Your task to perform on an android device: Open the contacts app Image 0: 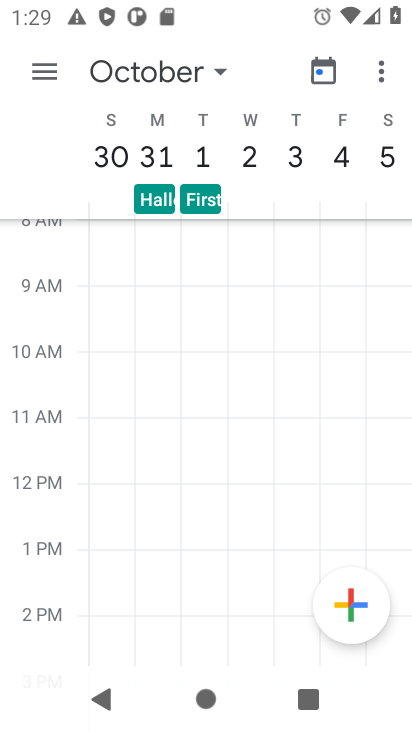
Step 0: press home button
Your task to perform on an android device: Open the contacts app Image 1: 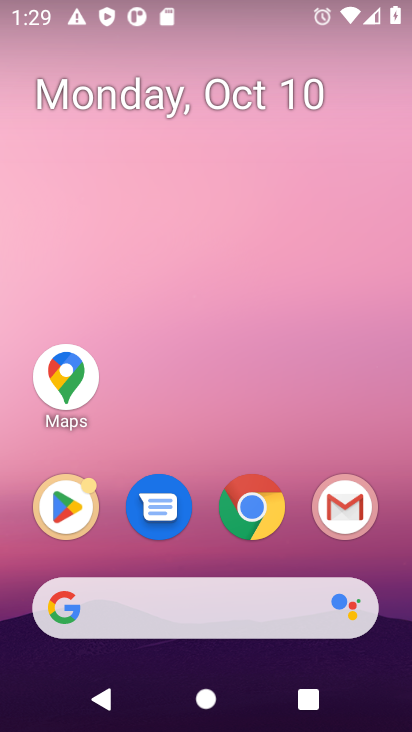
Step 1: drag from (376, 562) to (371, 131)
Your task to perform on an android device: Open the contacts app Image 2: 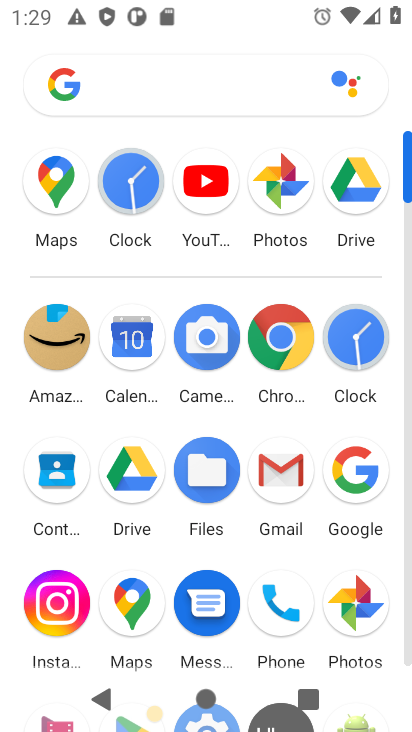
Step 2: drag from (387, 554) to (381, 376)
Your task to perform on an android device: Open the contacts app Image 3: 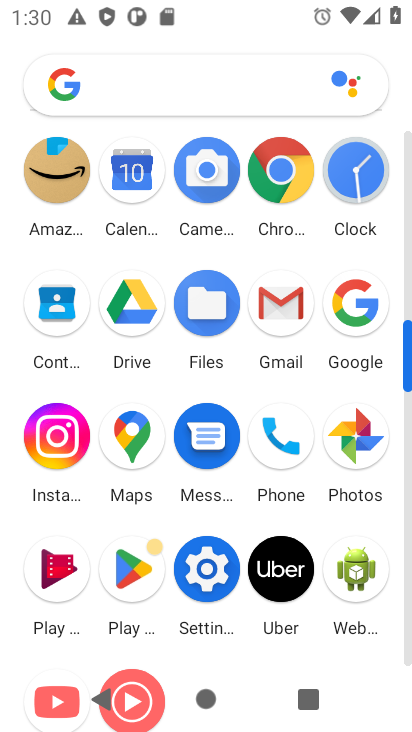
Step 3: click (65, 316)
Your task to perform on an android device: Open the contacts app Image 4: 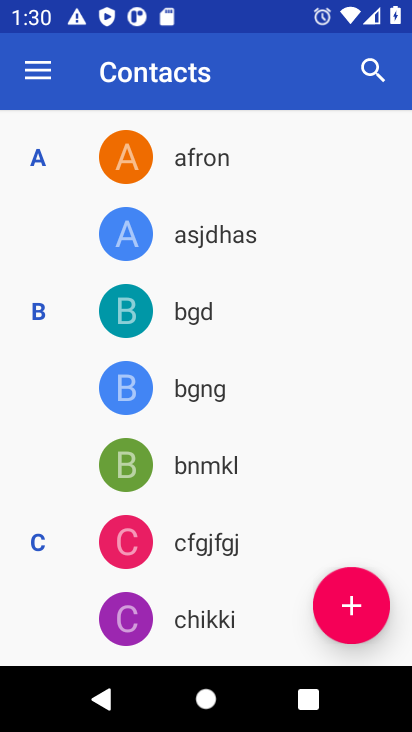
Step 4: task complete